Your task to perform on an android device: Do I have any events today? Image 0: 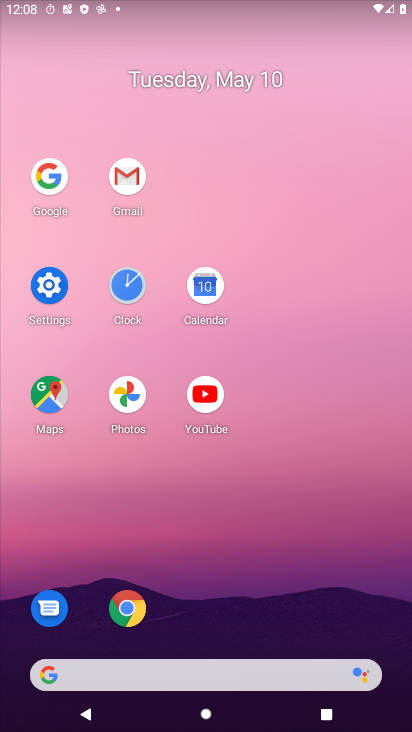
Step 0: click (198, 296)
Your task to perform on an android device: Do I have any events today? Image 1: 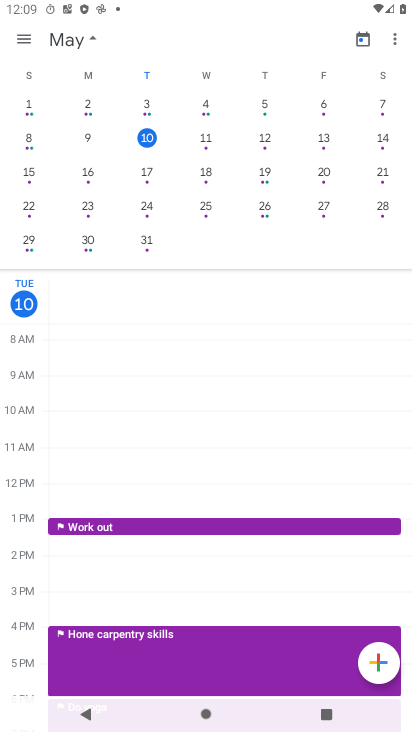
Step 1: click (27, 42)
Your task to perform on an android device: Do I have any events today? Image 2: 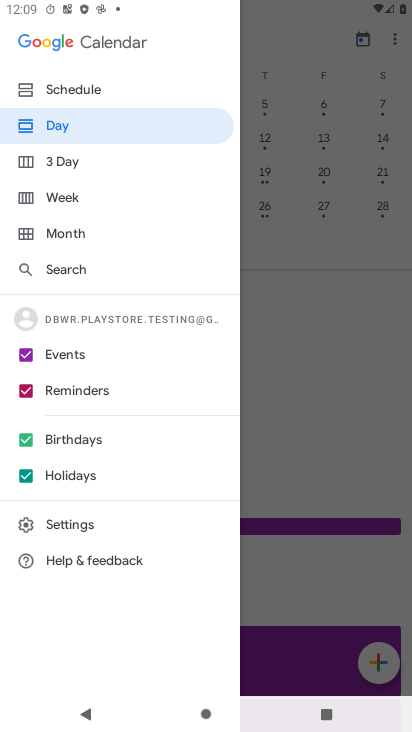
Step 2: click (78, 127)
Your task to perform on an android device: Do I have any events today? Image 3: 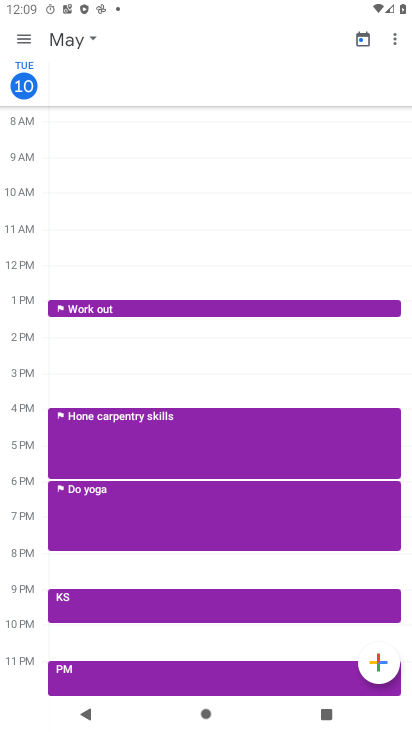
Step 3: task complete